Your task to perform on an android device: turn pop-ups off in chrome Image 0: 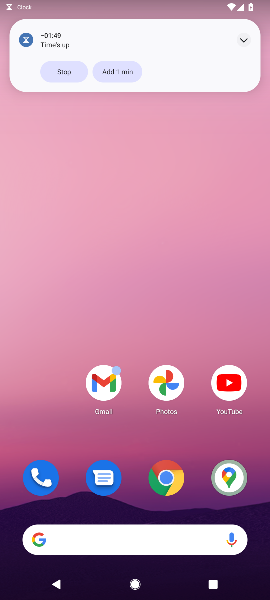
Step 0: click (173, 481)
Your task to perform on an android device: turn pop-ups off in chrome Image 1: 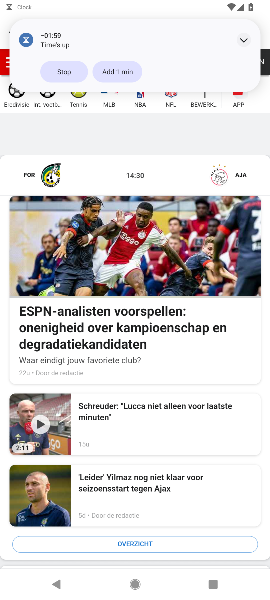
Step 1: click (63, 70)
Your task to perform on an android device: turn pop-ups off in chrome Image 2: 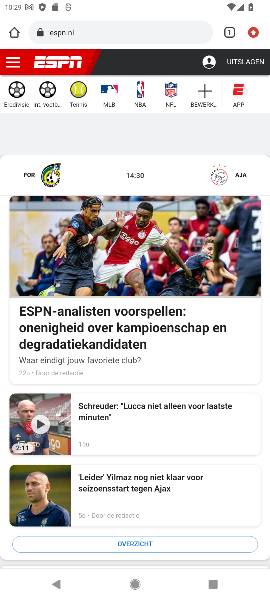
Step 2: click (254, 32)
Your task to perform on an android device: turn pop-ups off in chrome Image 3: 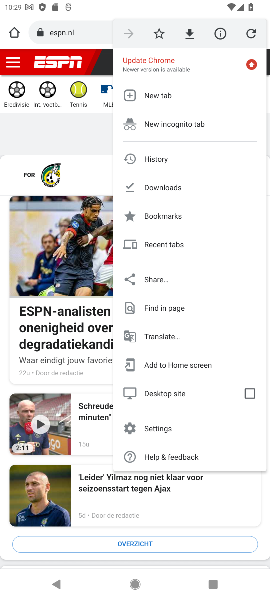
Step 3: click (148, 427)
Your task to perform on an android device: turn pop-ups off in chrome Image 4: 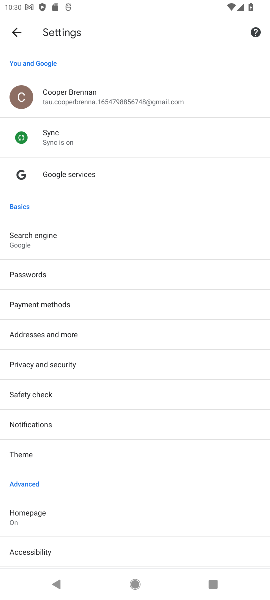
Step 4: drag from (39, 510) to (39, 291)
Your task to perform on an android device: turn pop-ups off in chrome Image 5: 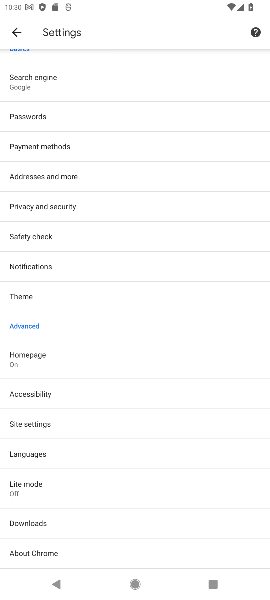
Step 5: click (40, 424)
Your task to perform on an android device: turn pop-ups off in chrome Image 6: 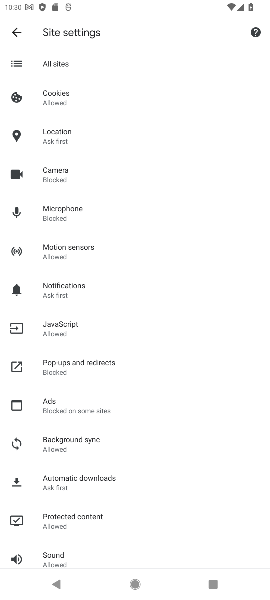
Step 6: click (50, 364)
Your task to perform on an android device: turn pop-ups off in chrome Image 7: 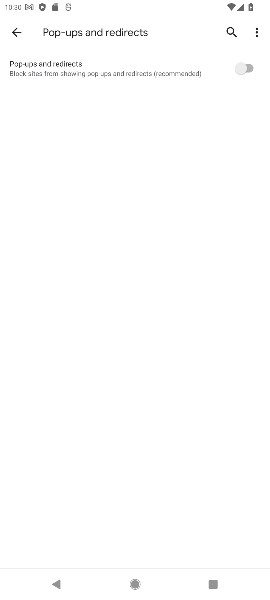
Step 7: task complete